Your task to perform on an android device: change keyboard looks Image 0: 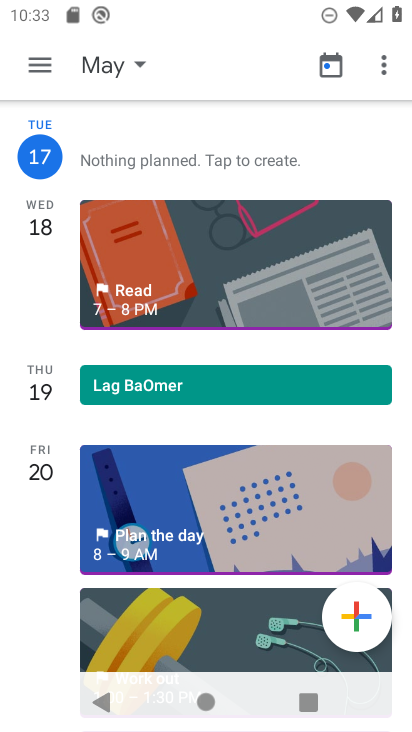
Step 0: press back button
Your task to perform on an android device: change keyboard looks Image 1: 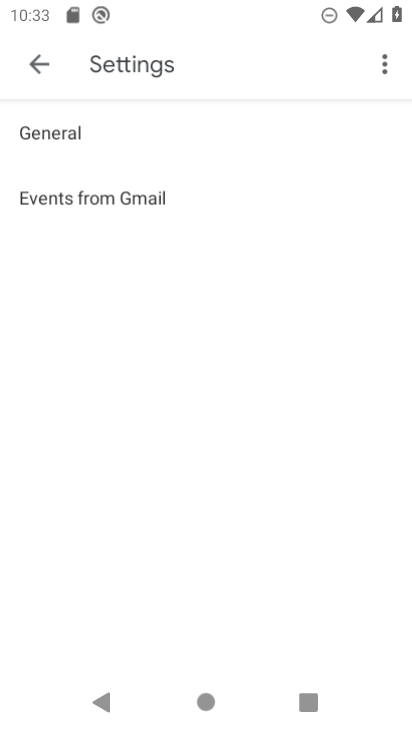
Step 1: press home button
Your task to perform on an android device: change keyboard looks Image 2: 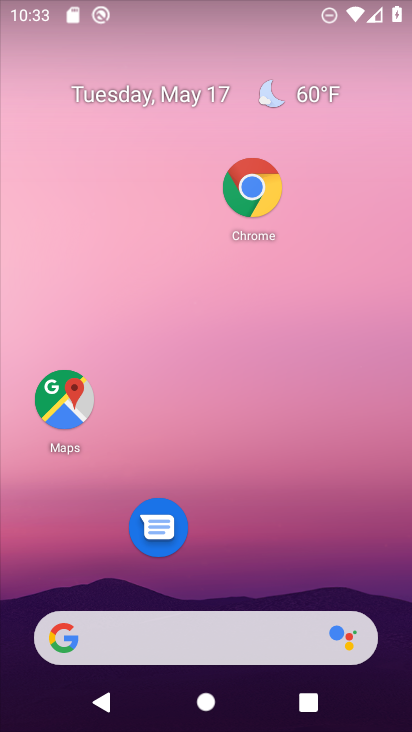
Step 2: drag from (264, 607) to (282, 213)
Your task to perform on an android device: change keyboard looks Image 3: 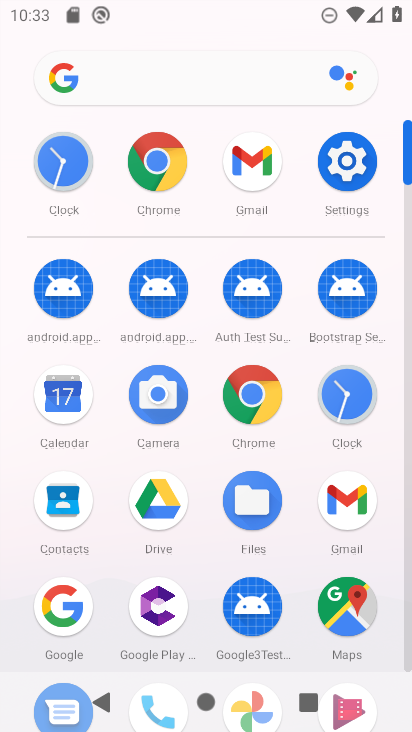
Step 3: click (379, 177)
Your task to perform on an android device: change keyboard looks Image 4: 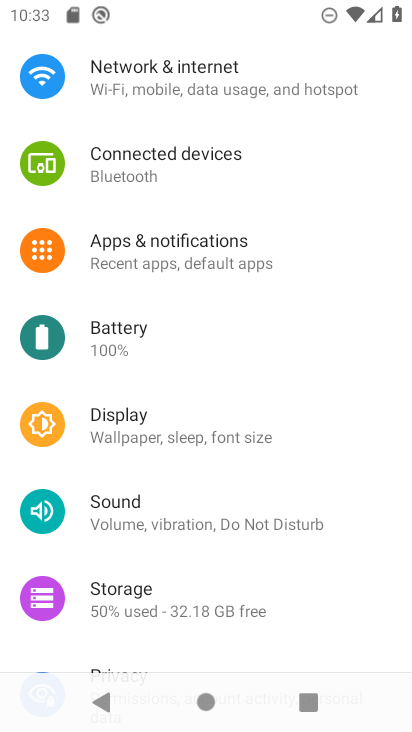
Step 4: drag from (204, 603) to (238, 204)
Your task to perform on an android device: change keyboard looks Image 5: 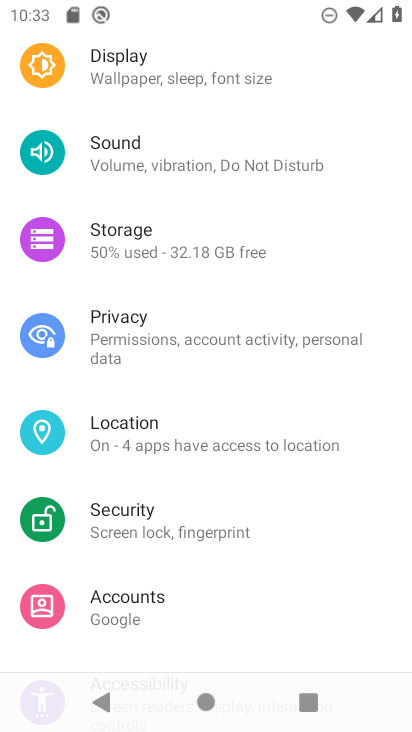
Step 5: drag from (225, 544) to (247, 268)
Your task to perform on an android device: change keyboard looks Image 6: 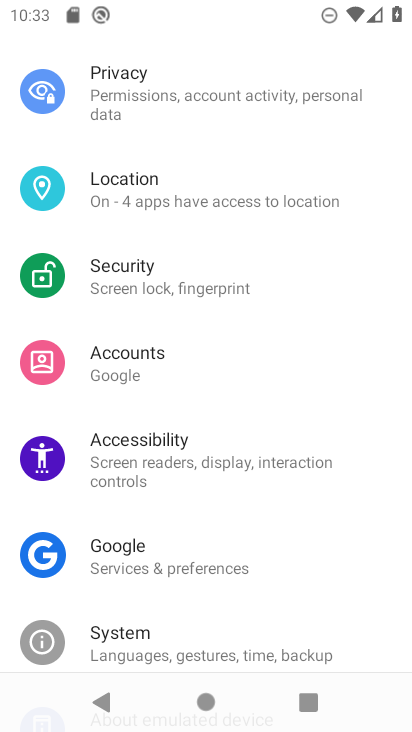
Step 6: click (174, 637)
Your task to perform on an android device: change keyboard looks Image 7: 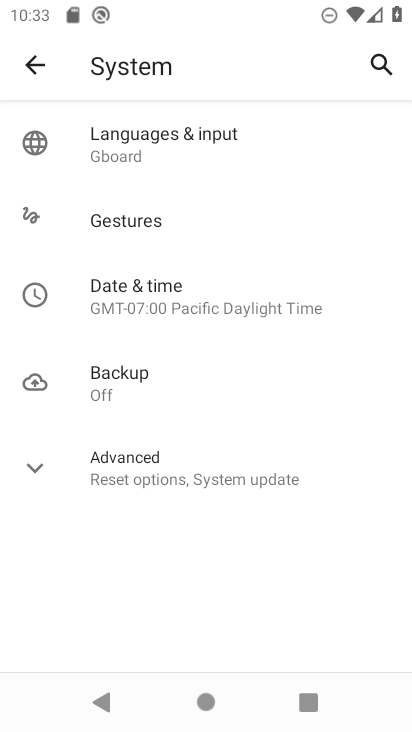
Step 7: click (114, 142)
Your task to perform on an android device: change keyboard looks Image 8: 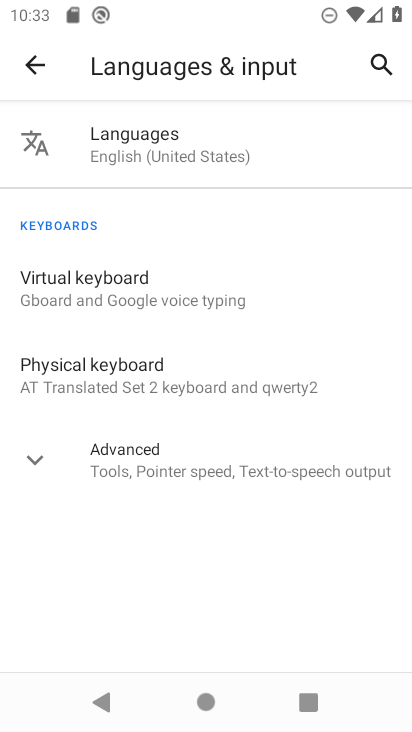
Step 8: click (195, 285)
Your task to perform on an android device: change keyboard looks Image 9: 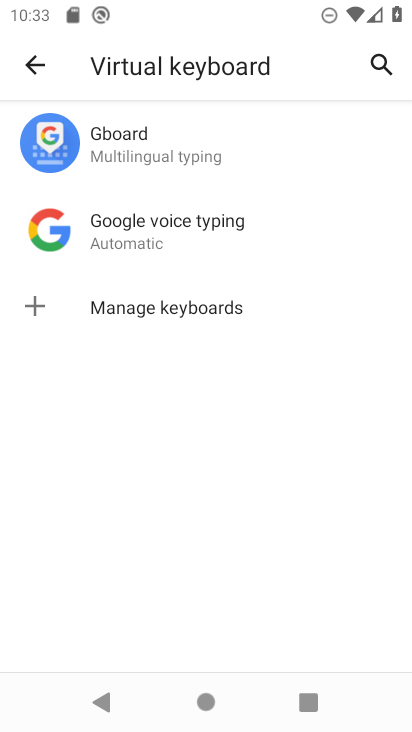
Step 9: click (162, 159)
Your task to perform on an android device: change keyboard looks Image 10: 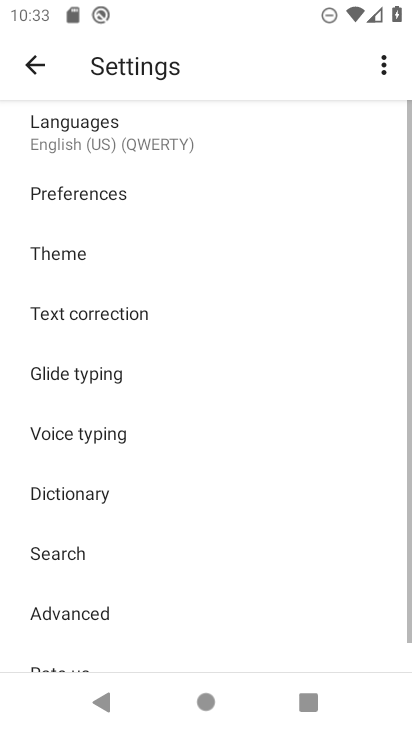
Step 10: click (132, 256)
Your task to perform on an android device: change keyboard looks Image 11: 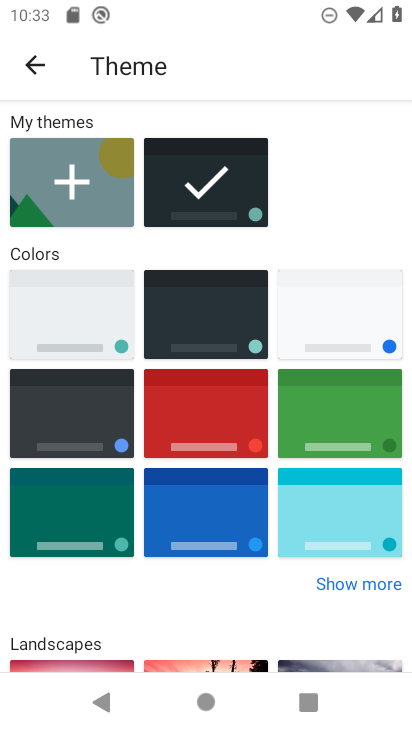
Step 11: click (199, 308)
Your task to perform on an android device: change keyboard looks Image 12: 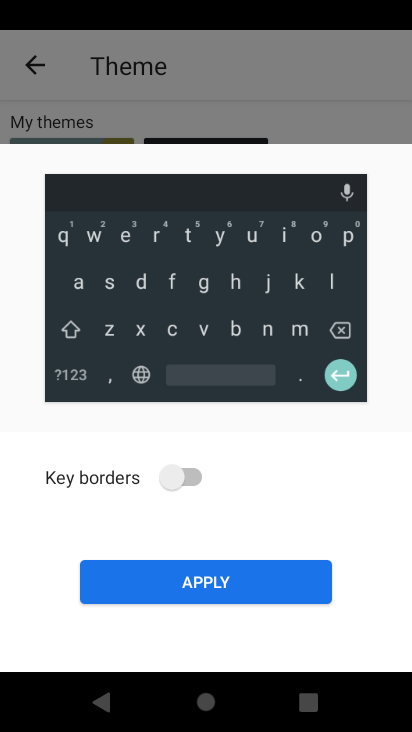
Step 12: click (269, 581)
Your task to perform on an android device: change keyboard looks Image 13: 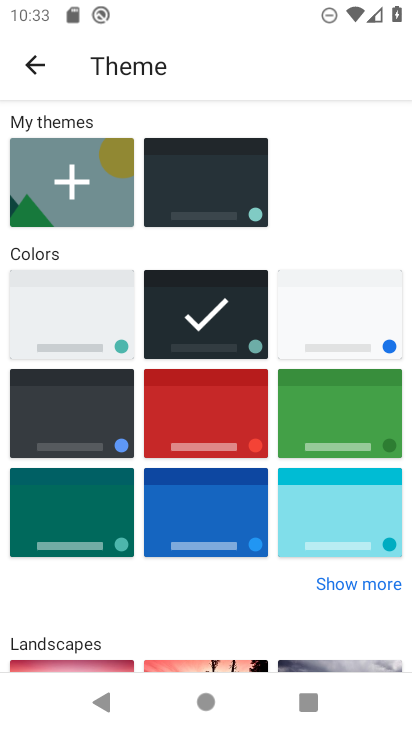
Step 13: task complete